Your task to perform on an android device: Open Chrome and go to settings Image 0: 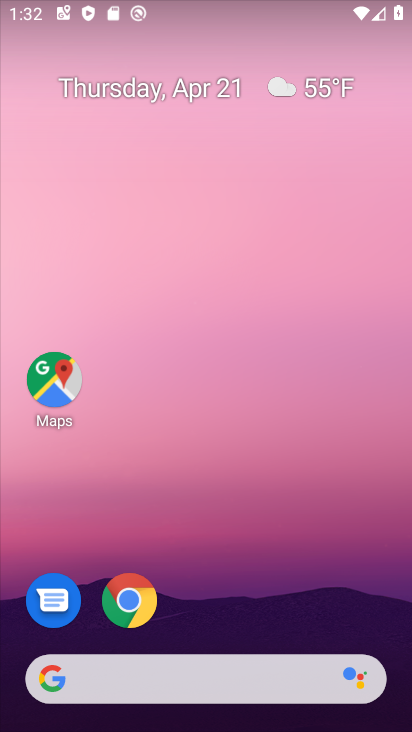
Step 0: click (128, 610)
Your task to perform on an android device: Open Chrome and go to settings Image 1: 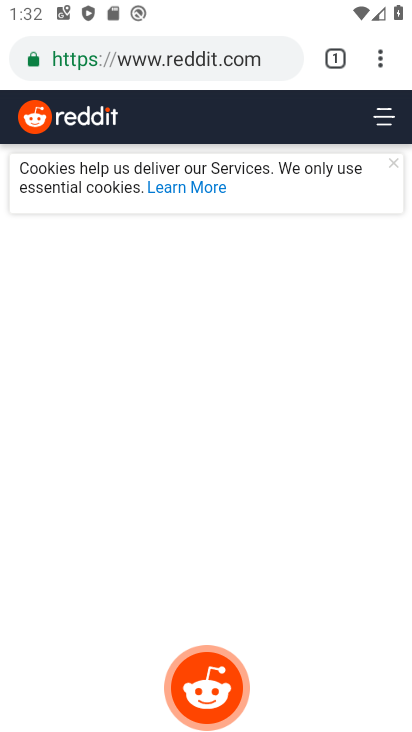
Step 1: task complete